Your task to perform on an android device: Search for hotels in Chicago Image 0: 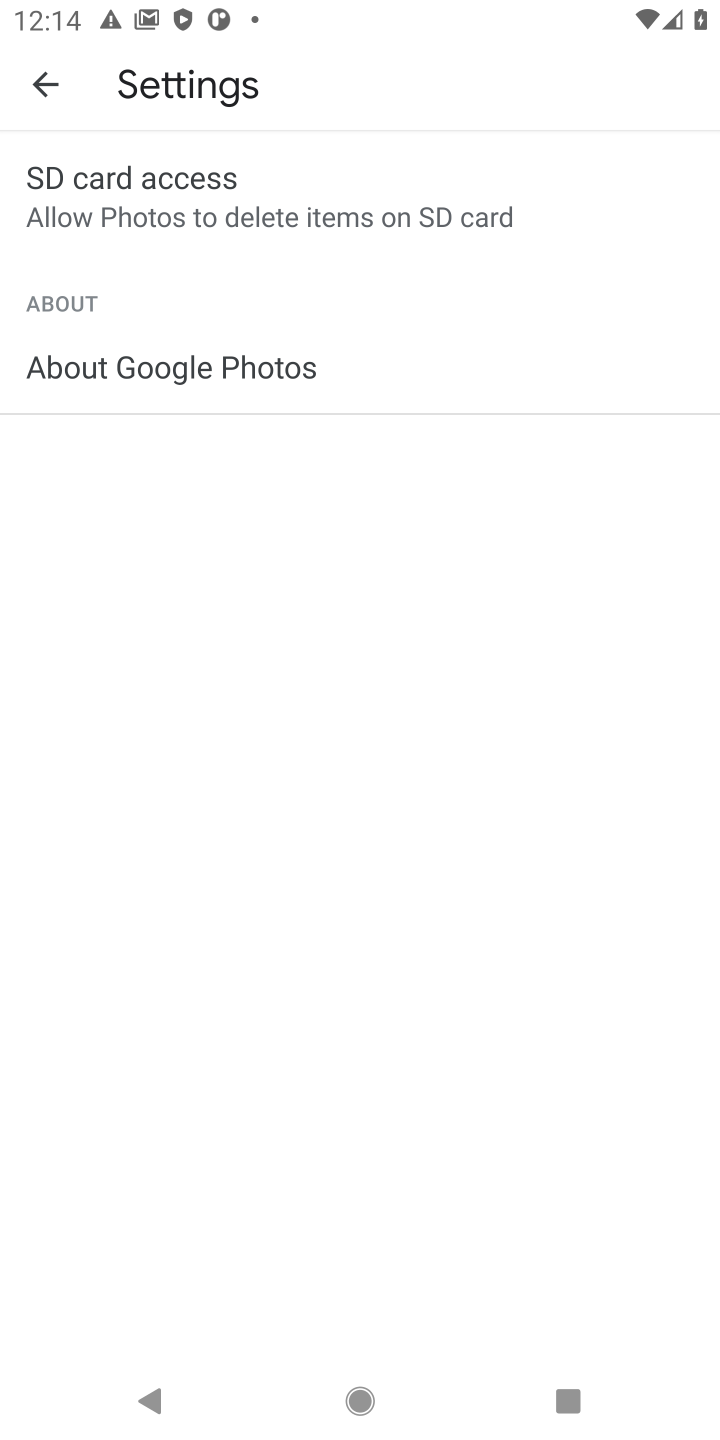
Step 0: press home button
Your task to perform on an android device: Search for hotels in Chicago Image 1: 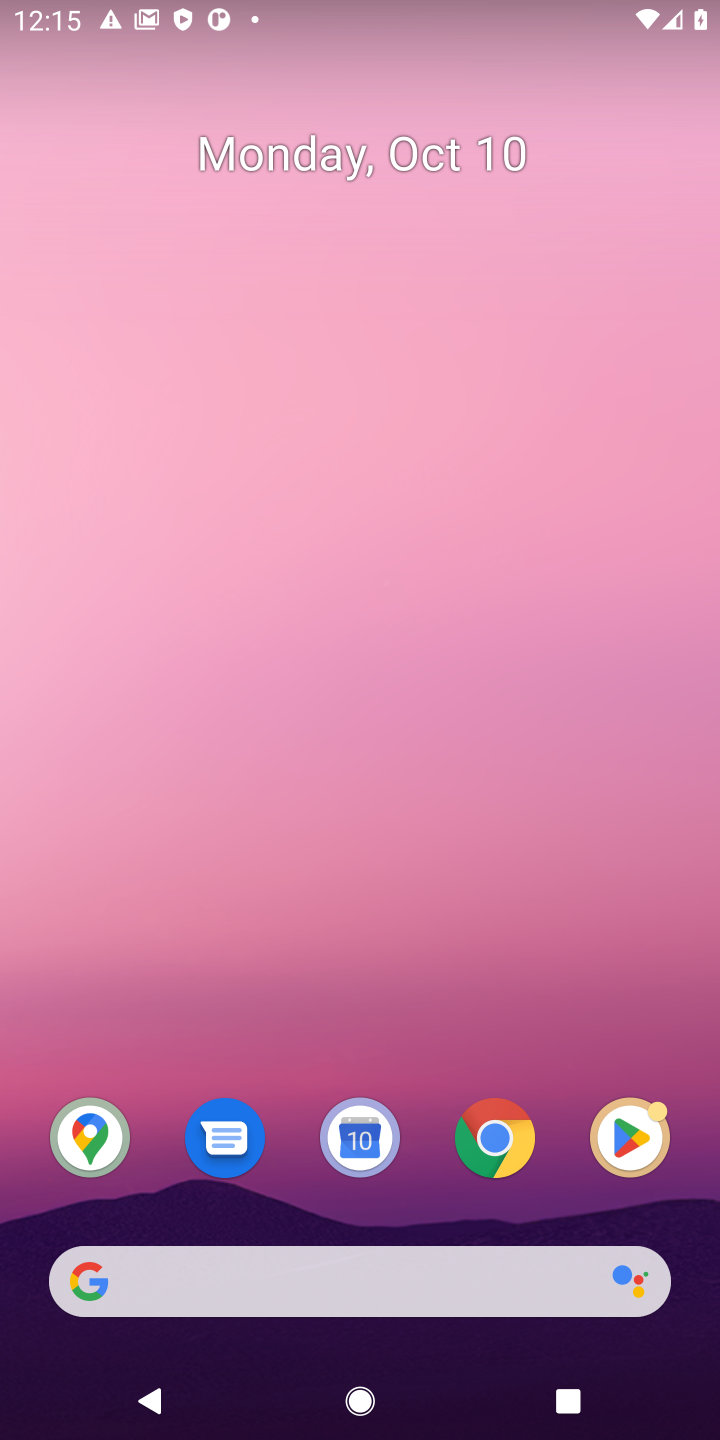
Step 1: click (496, 1148)
Your task to perform on an android device: Search for hotels in Chicago Image 2: 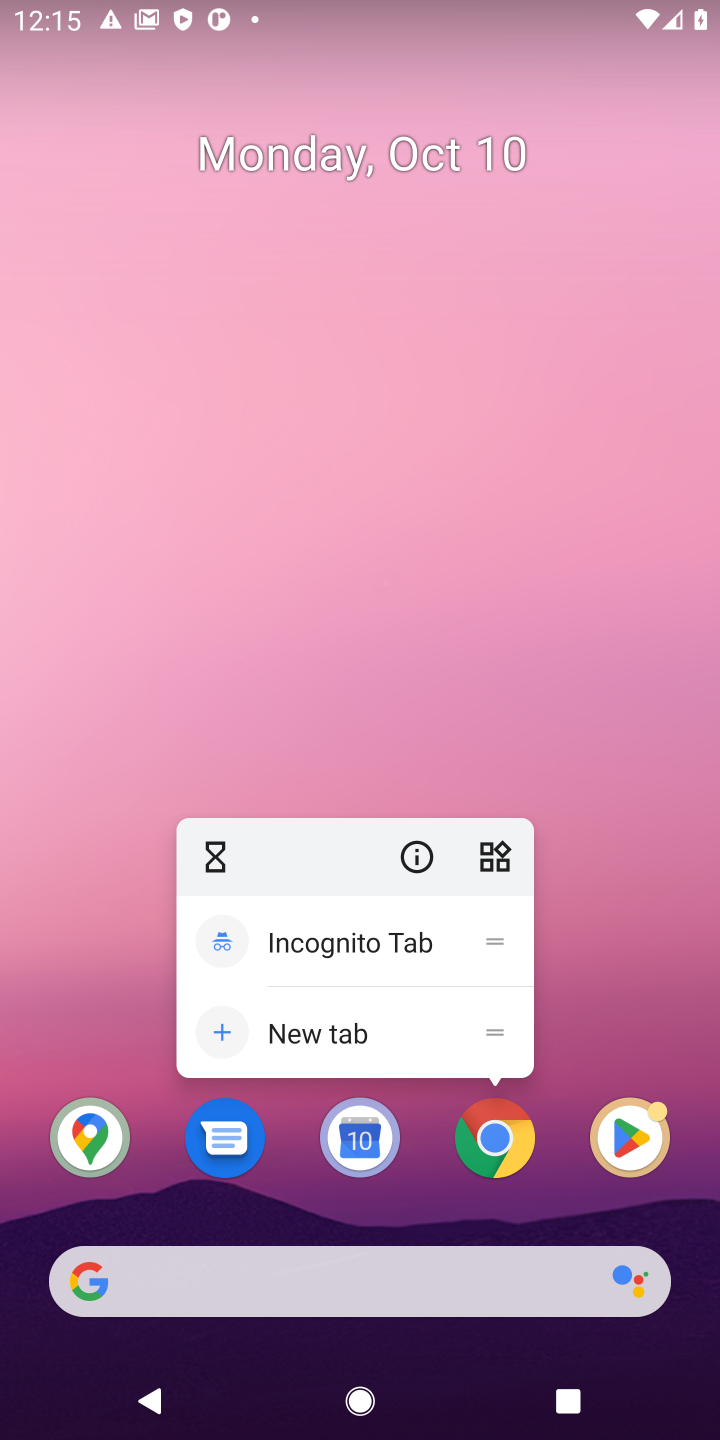
Step 2: click (481, 1142)
Your task to perform on an android device: Search for hotels in Chicago Image 3: 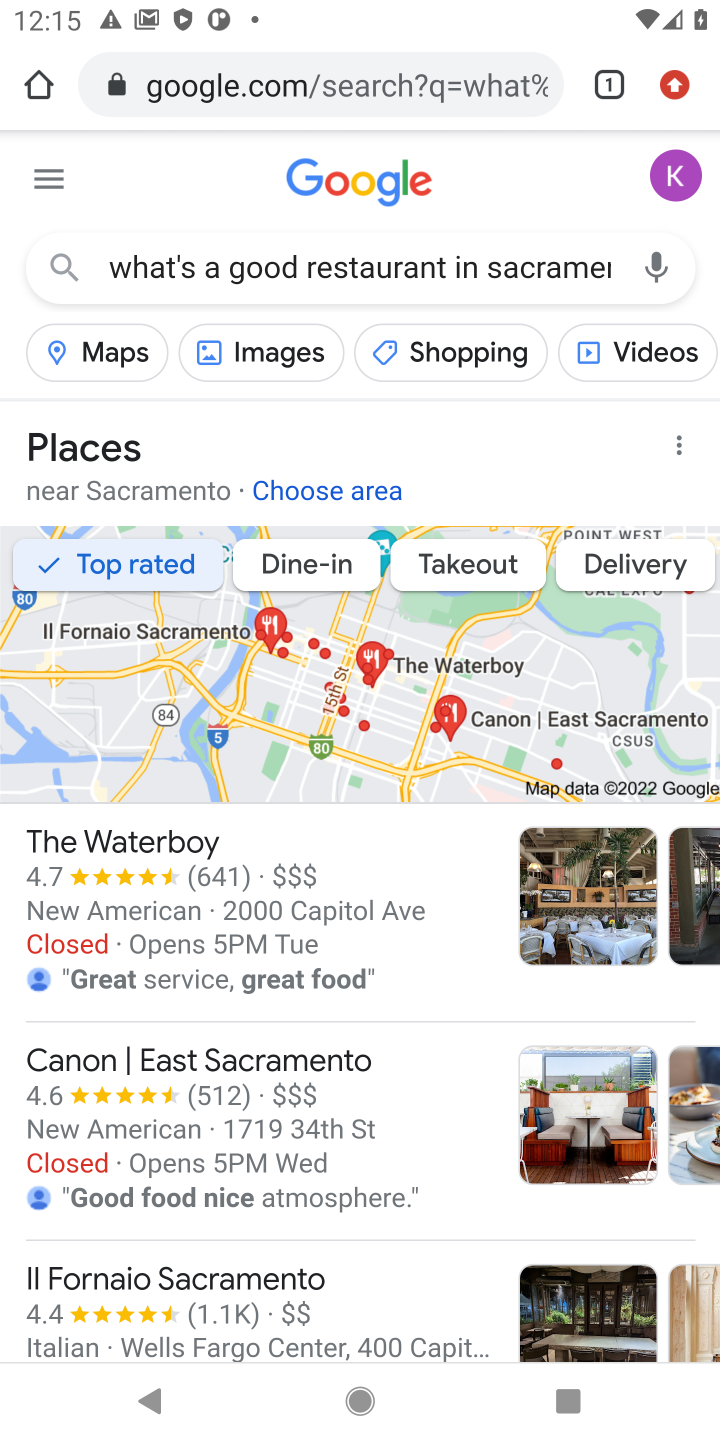
Step 3: click (471, 258)
Your task to perform on an android device: Search for hotels in Chicago Image 4: 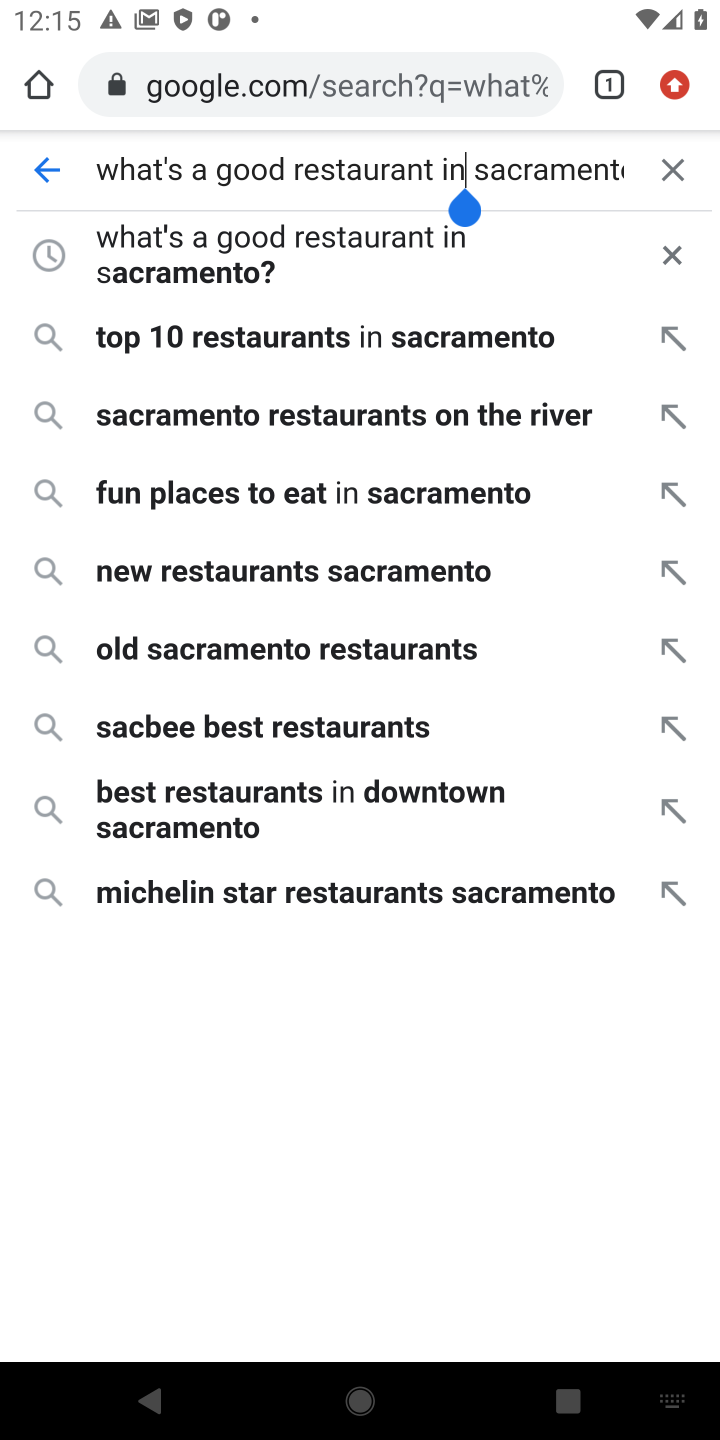
Step 4: click (682, 184)
Your task to perform on an android device: Search for hotels in Chicago Image 5: 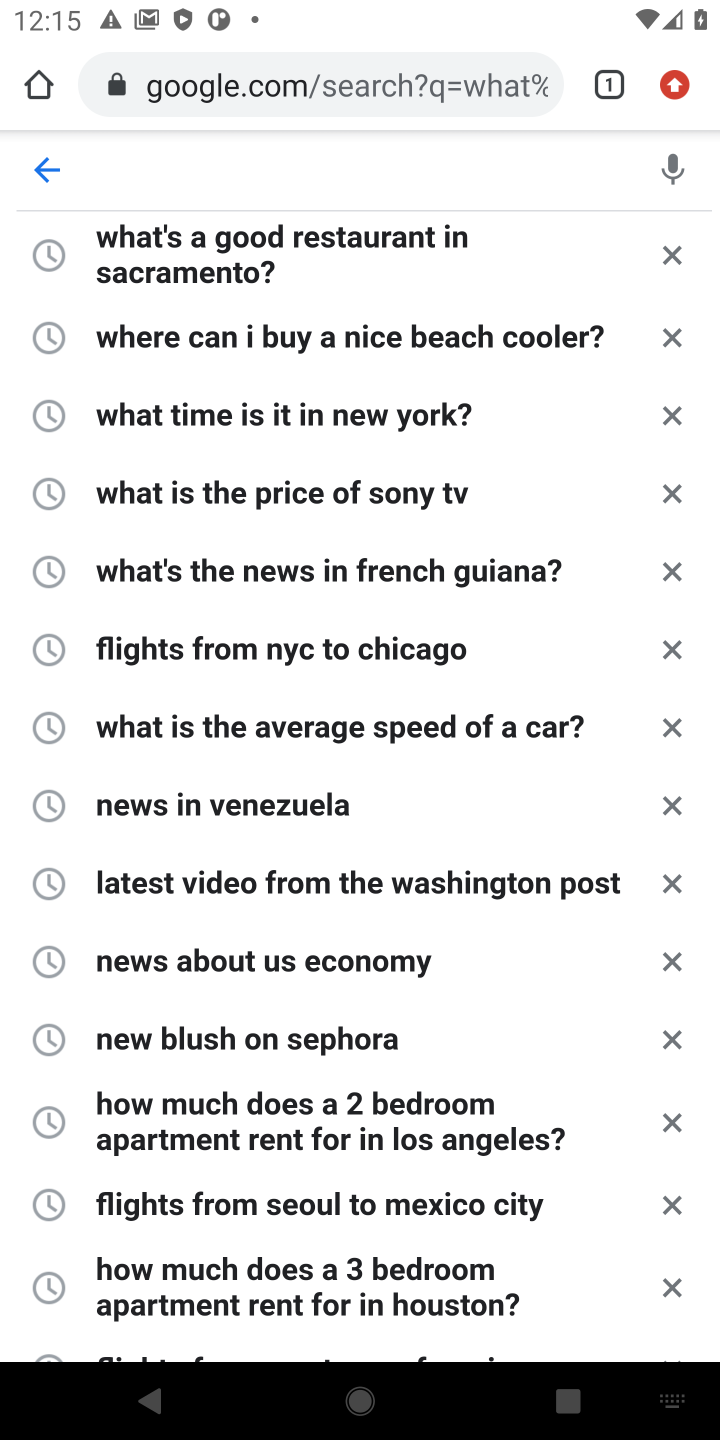
Step 5: type "hotels in chicago"
Your task to perform on an android device: Search for hotels in Chicago Image 6: 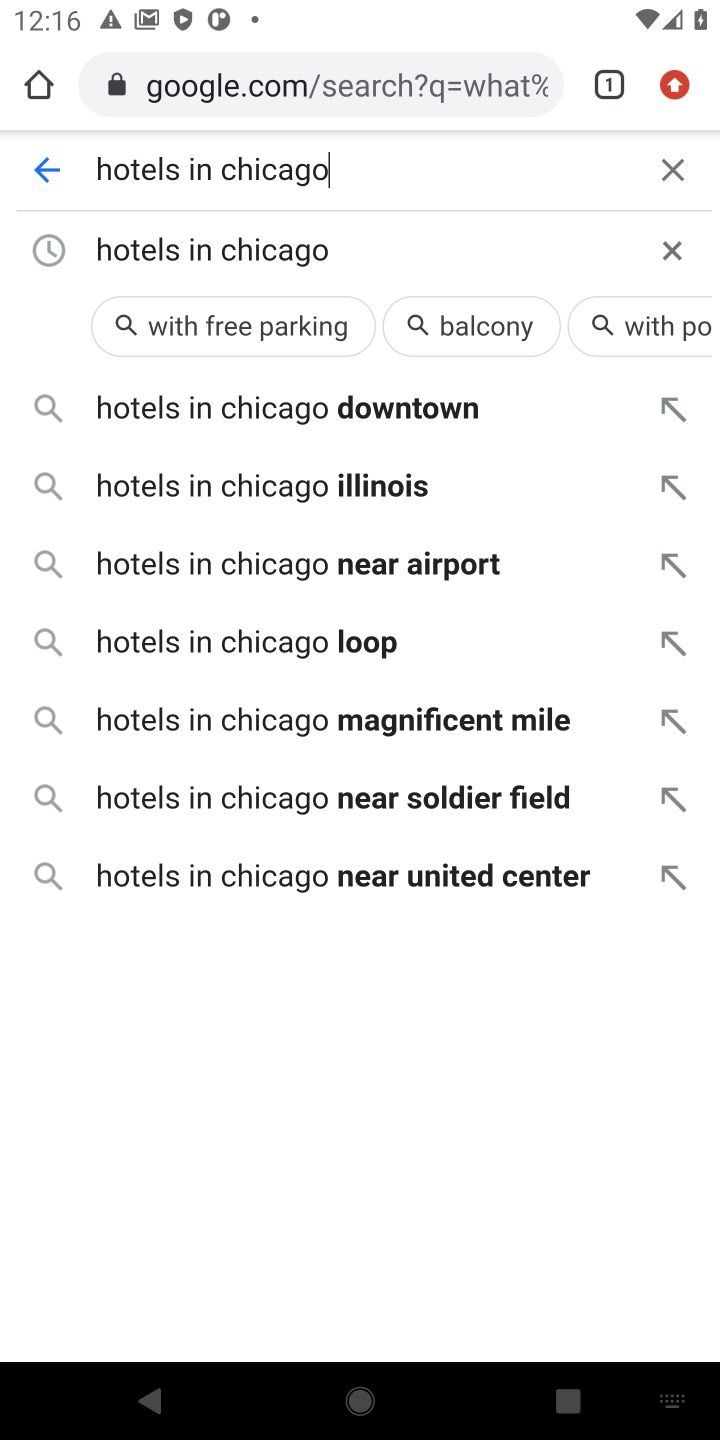
Step 6: press enter
Your task to perform on an android device: Search for hotels in Chicago Image 7: 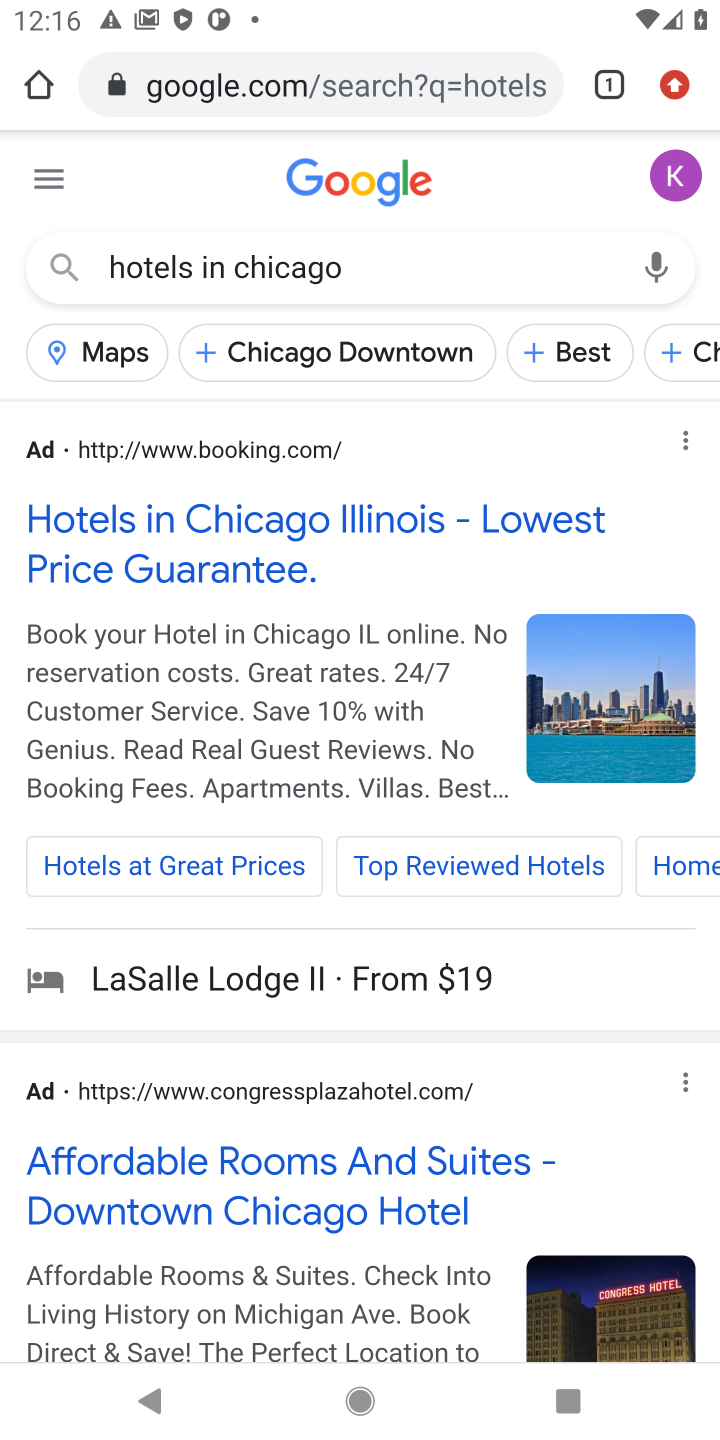
Step 7: task complete